Your task to perform on an android device: find which apps use the phone's location Image 0: 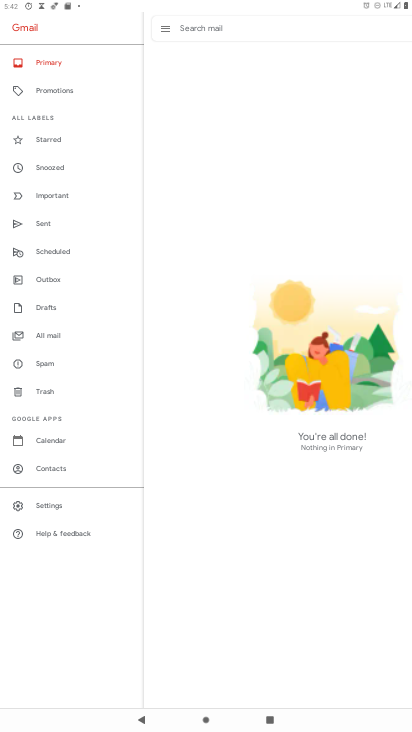
Step 0: press home button
Your task to perform on an android device: find which apps use the phone's location Image 1: 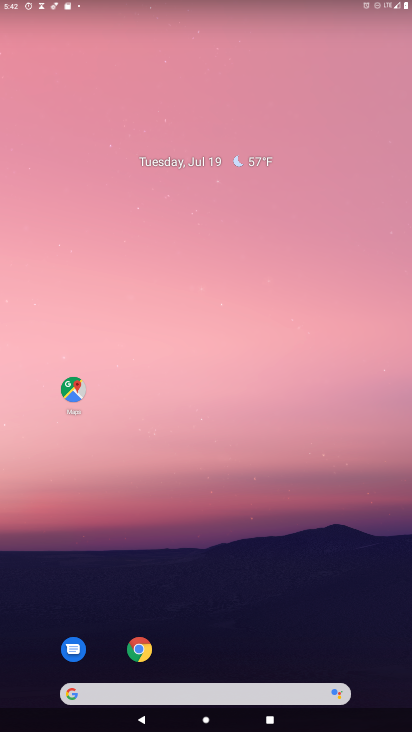
Step 1: drag from (214, 641) to (220, 10)
Your task to perform on an android device: find which apps use the phone's location Image 2: 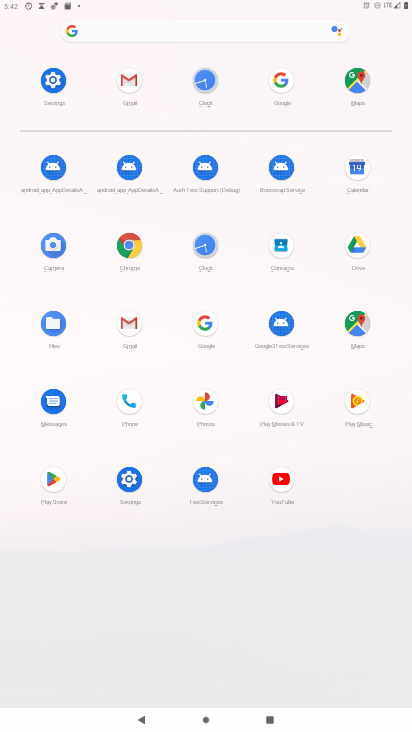
Step 2: click (49, 82)
Your task to perform on an android device: find which apps use the phone's location Image 3: 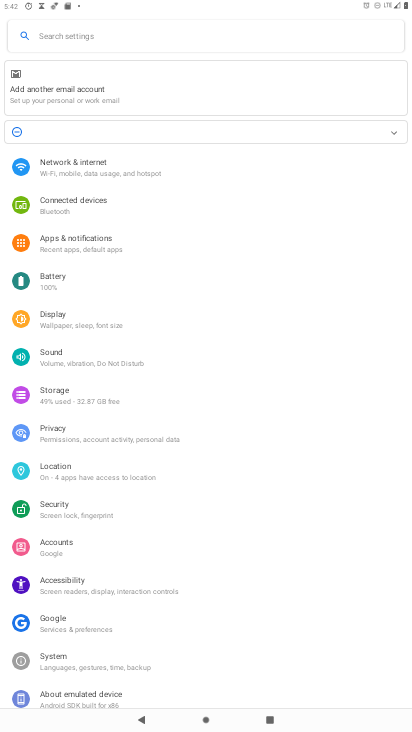
Step 3: click (47, 481)
Your task to perform on an android device: find which apps use the phone's location Image 4: 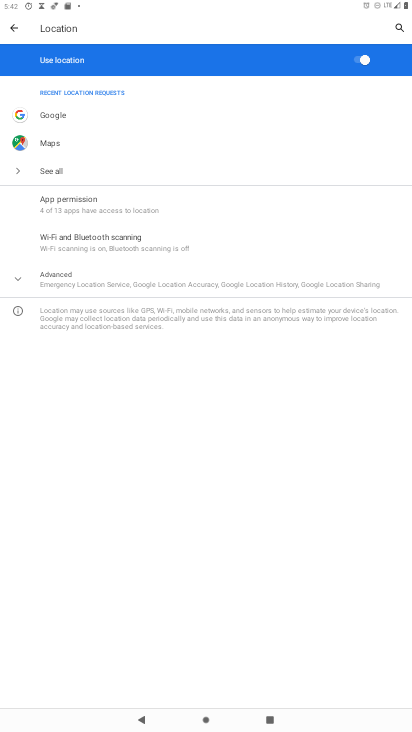
Step 4: click (54, 283)
Your task to perform on an android device: find which apps use the phone's location Image 5: 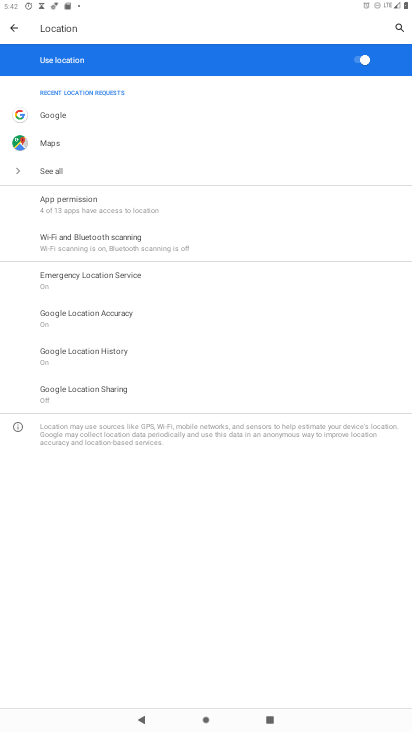
Step 5: click (101, 209)
Your task to perform on an android device: find which apps use the phone's location Image 6: 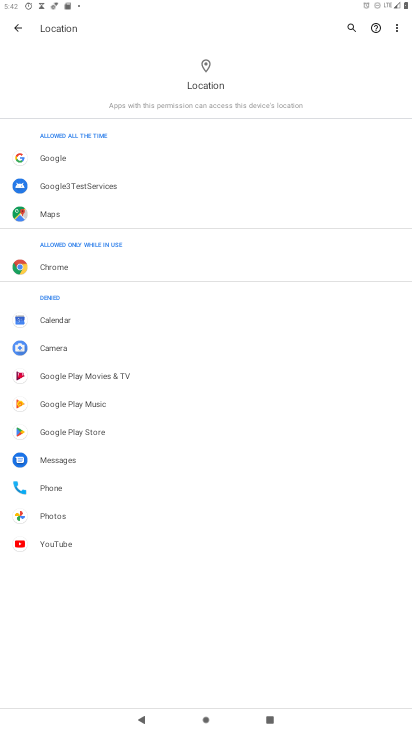
Step 6: task complete